Your task to perform on an android device: choose inbox layout in the gmail app Image 0: 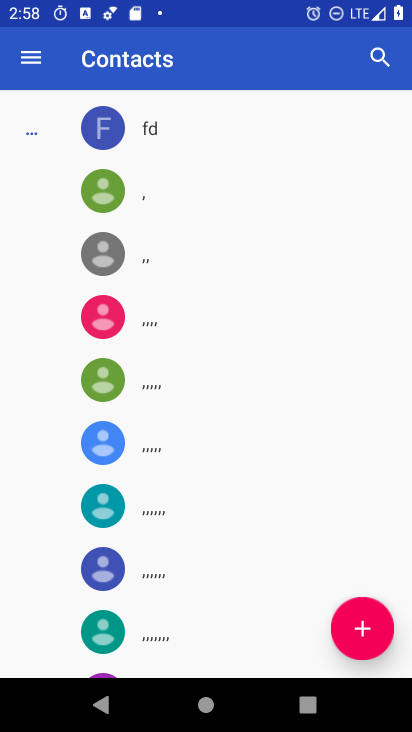
Step 0: press home button
Your task to perform on an android device: choose inbox layout in the gmail app Image 1: 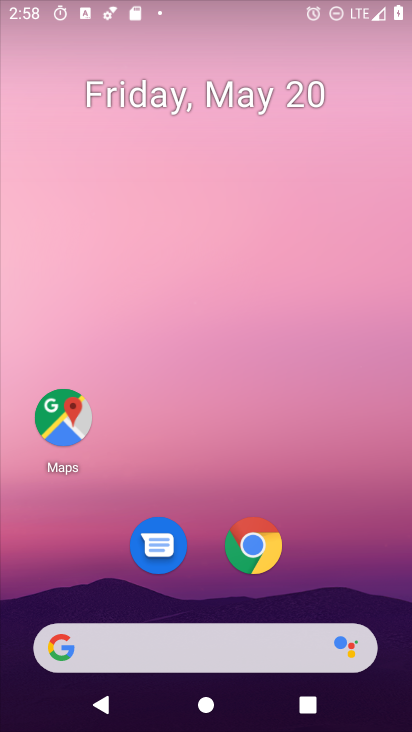
Step 1: drag from (208, 632) to (236, 49)
Your task to perform on an android device: choose inbox layout in the gmail app Image 2: 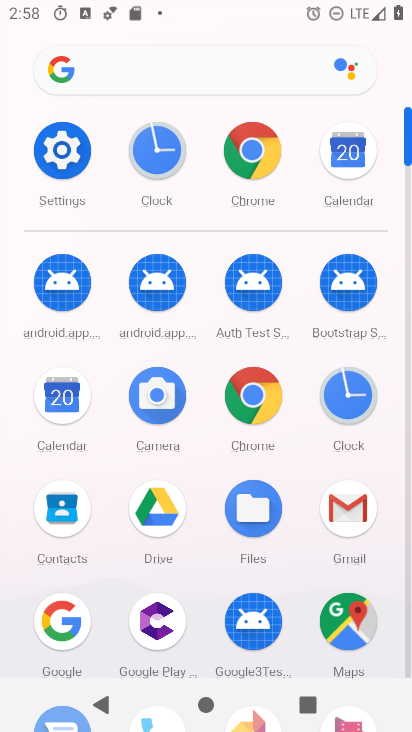
Step 2: click (356, 516)
Your task to perform on an android device: choose inbox layout in the gmail app Image 3: 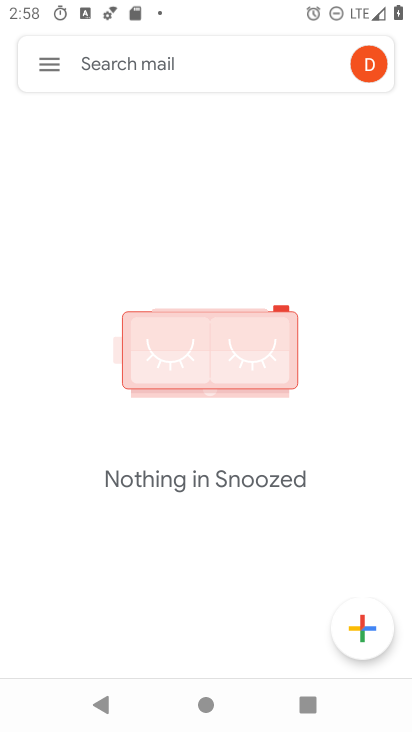
Step 3: click (51, 56)
Your task to perform on an android device: choose inbox layout in the gmail app Image 4: 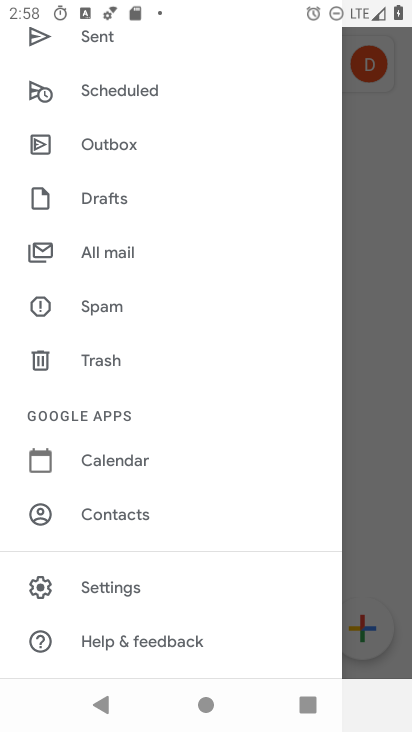
Step 4: drag from (212, 390) to (197, 722)
Your task to perform on an android device: choose inbox layout in the gmail app Image 5: 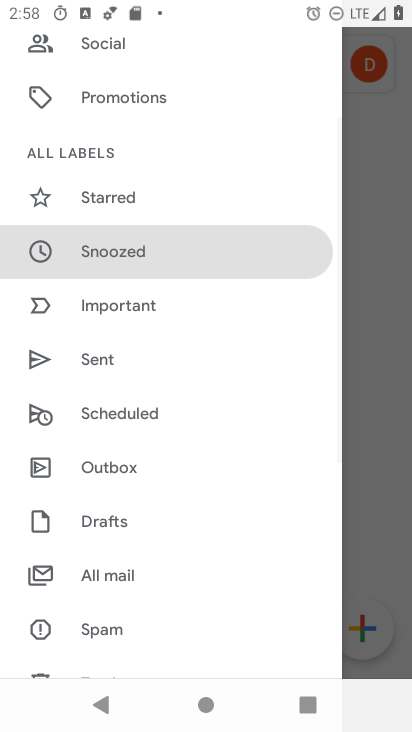
Step 5: drag from (145, 630) to (185, 42)
Your task to perform on an android device: choose inbox layout in the gmail app Image 6: 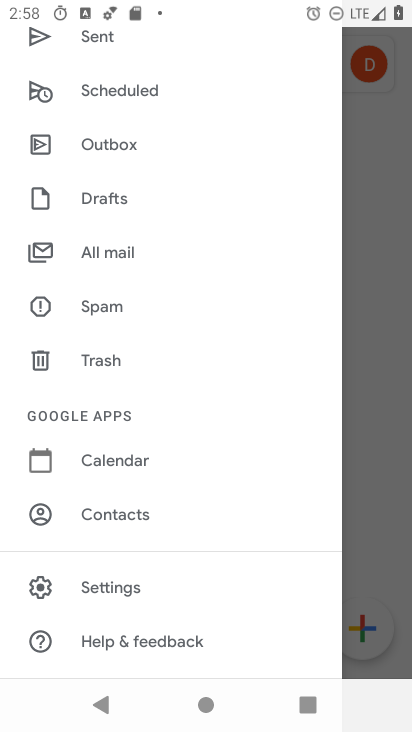
Step 6: click (152, 592)
Your task to perform on an android device: choose inbox layout in the gmail app Image 7: 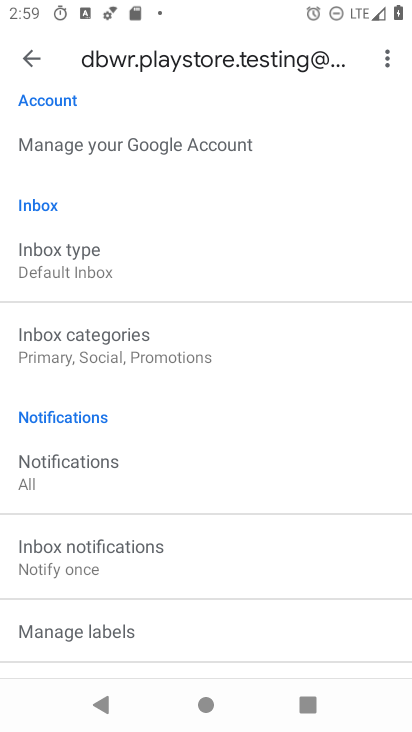
Step 7: drag from (209, 378) to (243, 694)
Your task to perform on an android device: choose inbox layout in the gmail app Image 8: 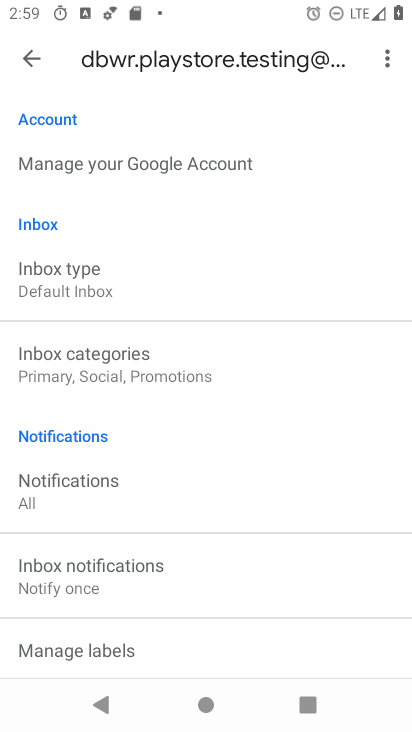
Step 8: drag from (267, 656) to (268, 283)
Your task to perform on an android device: choose inbox layout in the gmail app Image 9: 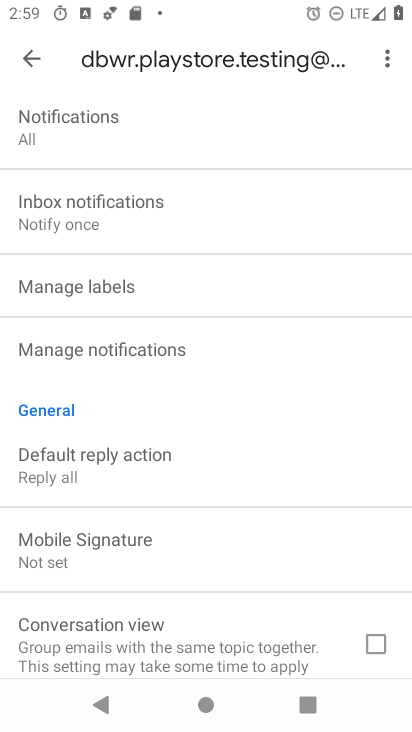
Step 9: drag from (240, 141) to (301, 666)
Your task to perform on an android device: choose inbox layout in the gmail app Image 10: 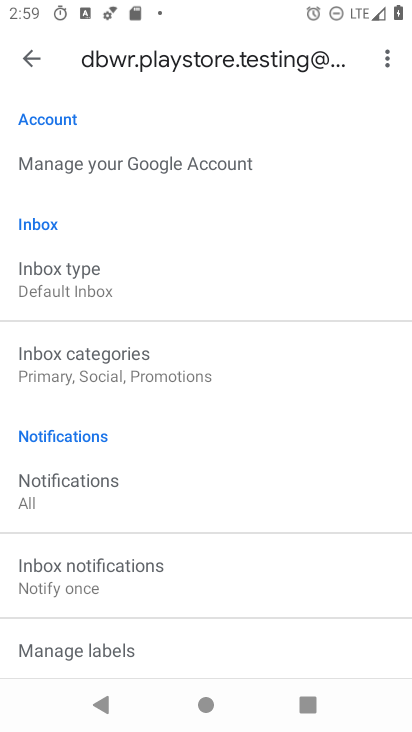
Step 10: click (174, 292)
Your task to perform on an android device: choose inbox layout in the gmail app Image 11: 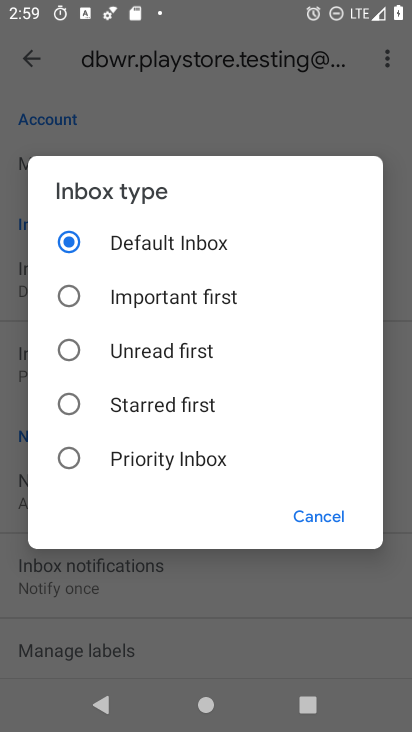
Step 11: click (75, 405)
Your task to perform on an android device: choose inbox layout in the gmail app Image 12: 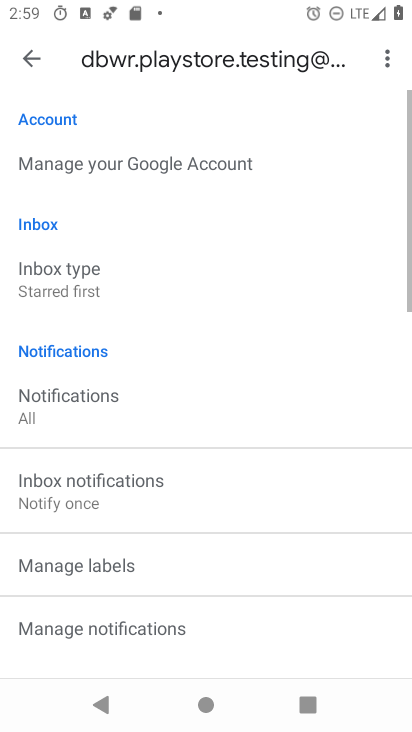
Step 12: task complete